Your task to perform on an android device: delete the emails in spam in the gmail app Image 0: 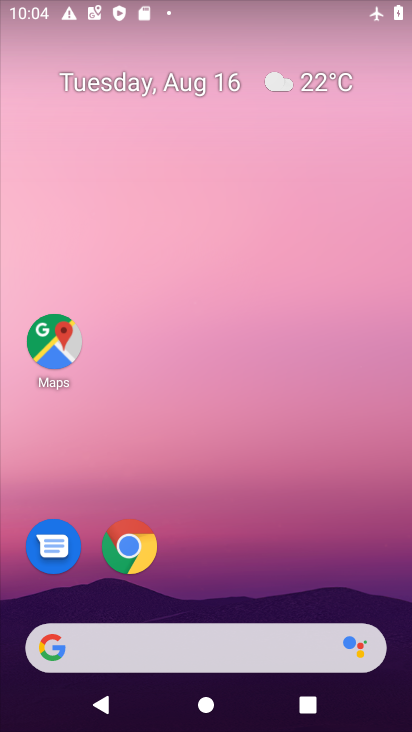
Step 0: drag from (222, 528) to (300, 0)
Your task to perform on an android device: delete the emails in spam in the gmail app Image 1: 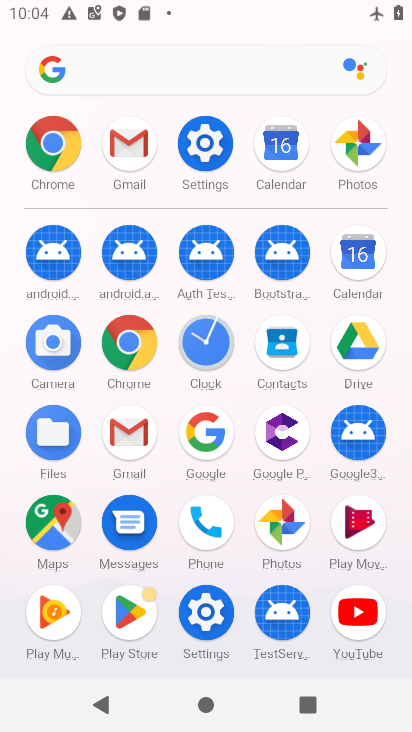
Step 1: click (133, 144)
Your task to perform on an android device: delete the emails in spam in the gmail app Image 2: 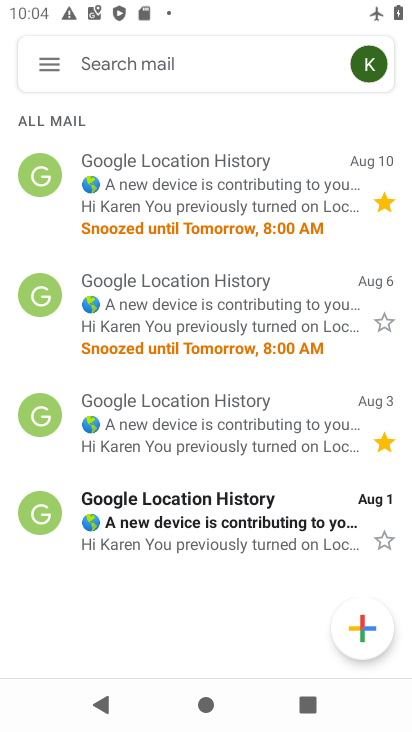
Step 2: click (50, 63)
Your task to perform on an android device: delete the emails in spam in the gmail app Image 3: 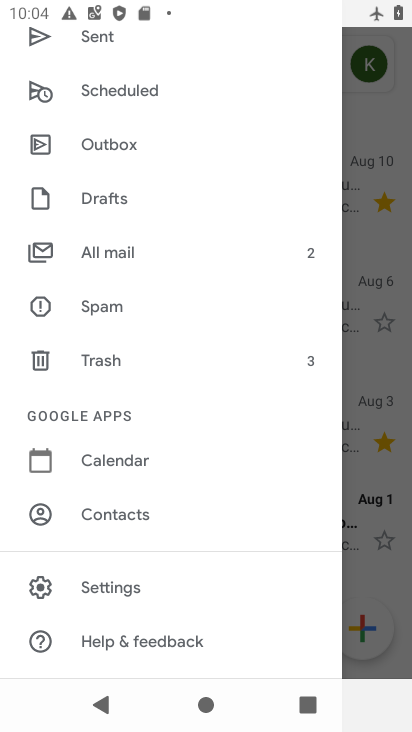
Step 3: click (88, 301)
Your task to perform on an android device: delete the emails in spam in the gmail app Image 4: 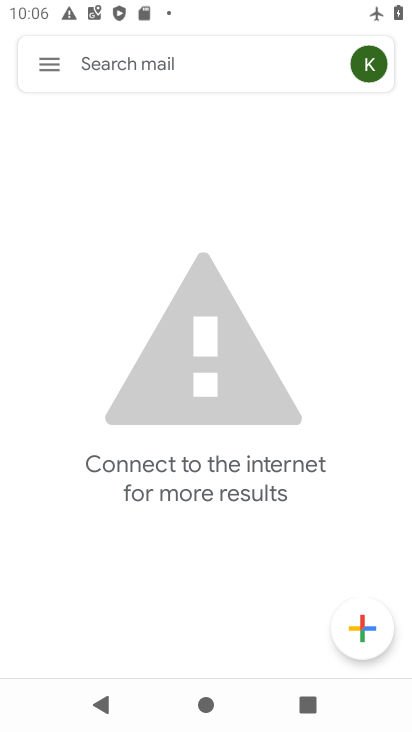
Step 4: task complete